Your task to perform on an android device: turn on wifi Image 0: 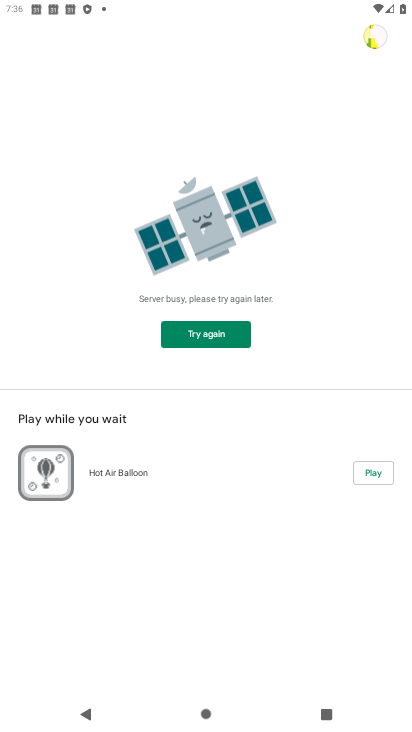
Step 0: press home button
Your task to perform on an android device: turn on wifi Image 1: 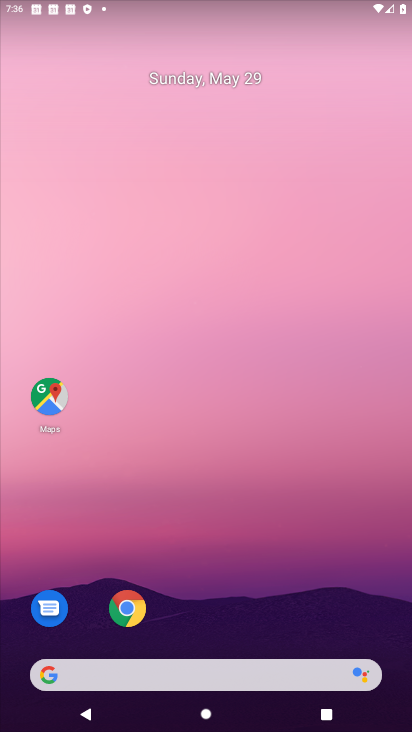
Step 1: drag from (234, 529) to (147, 11)
Your task to perform on an android device: turn on wifi Image 2: 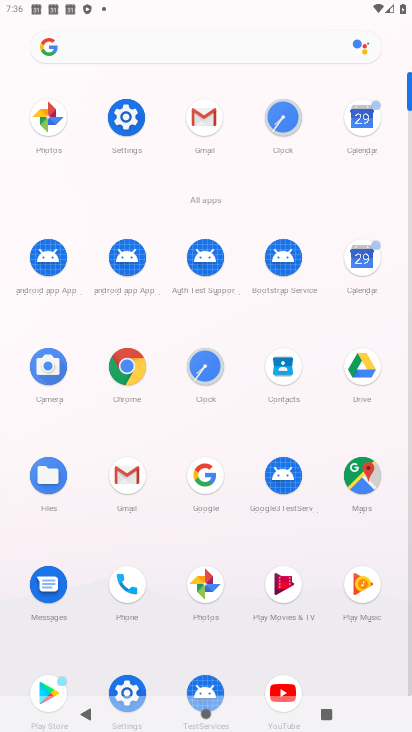
Step 2: click (125, 123)
Your task to perform on an android device: turn on wifi Image 3: 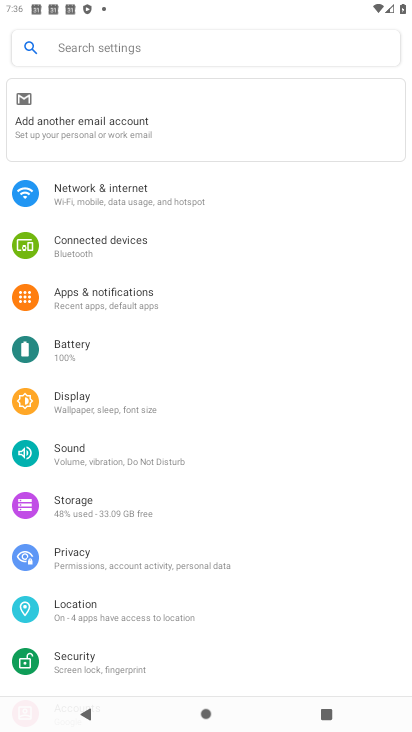
Step 3: click (126, 197)
Your task to perform on an android device: turn on wifi Image 4: 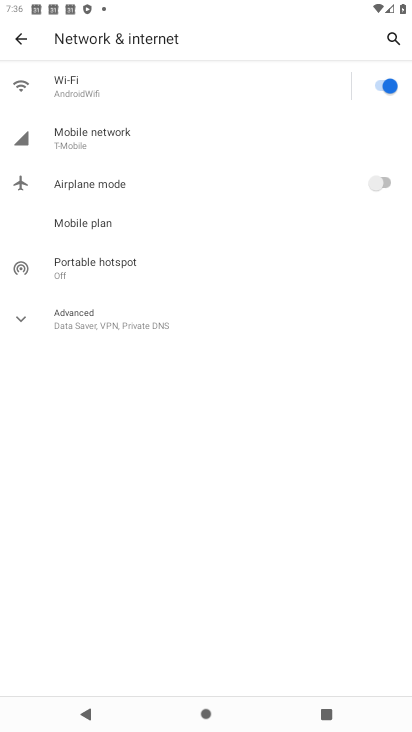
Step 4: task complete